Your task to perform on an android device: Open Reddit.com Image 0: 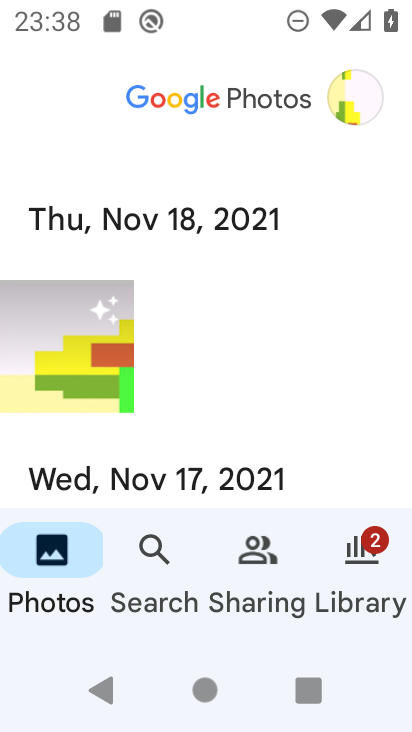
Step 0: drag from (212, 445) to (304, 106)
Your task to perform on an android device: Open Reddit.com Image 1: 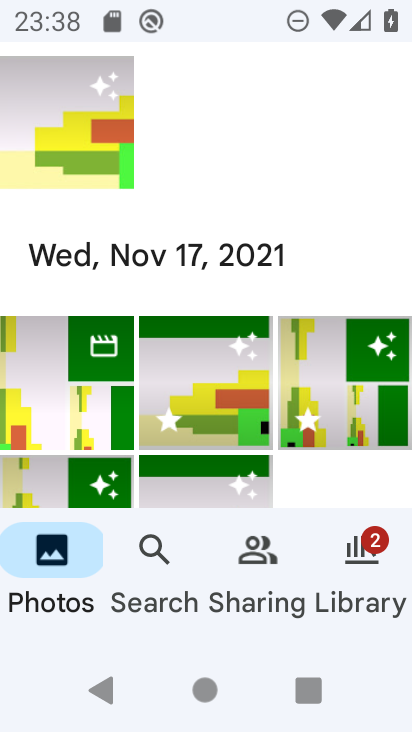
Step 1: drag from (237, 150) to (410, 623)
Your task to perform on an android device: Open Reddit.com Image 2: 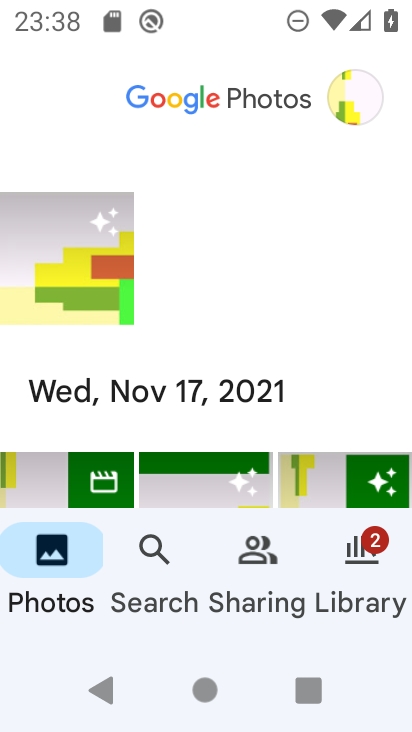
Step 2: click (371, 545)
Your task to perform on an android device: Open Reddit.com Image 3: 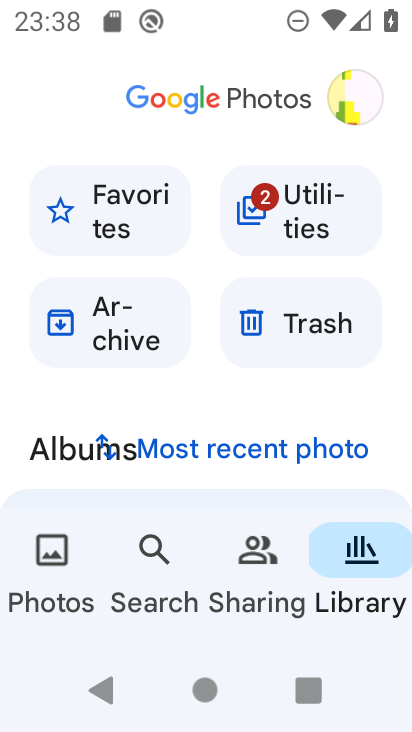
Step 3: press home button
Your task to perform on an android device: Open Reddit.com Image 4: 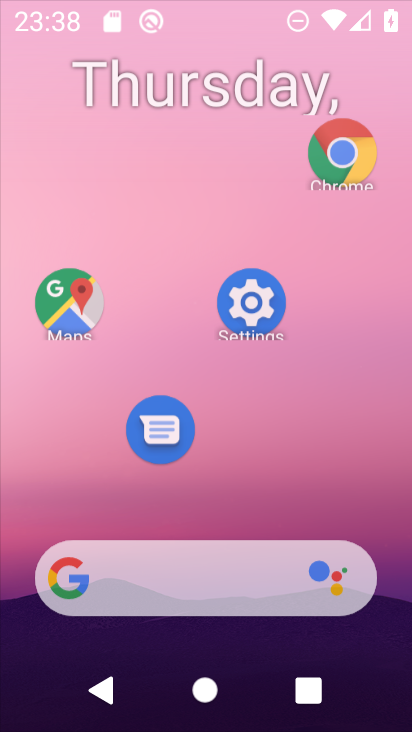
Step 4: drag from (202, 471) to (302, 1)
Your task to perform on an android device: Open Reddit.com Image 5: 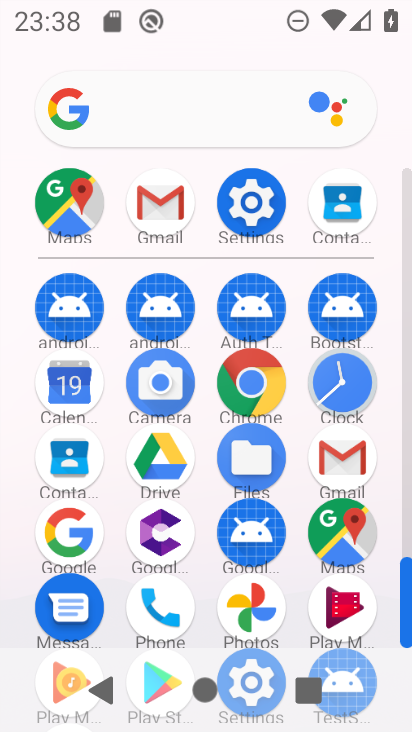
Step 5: click (252, 382)
Your task to perform on an android device: Open Reddit.com Image 6: 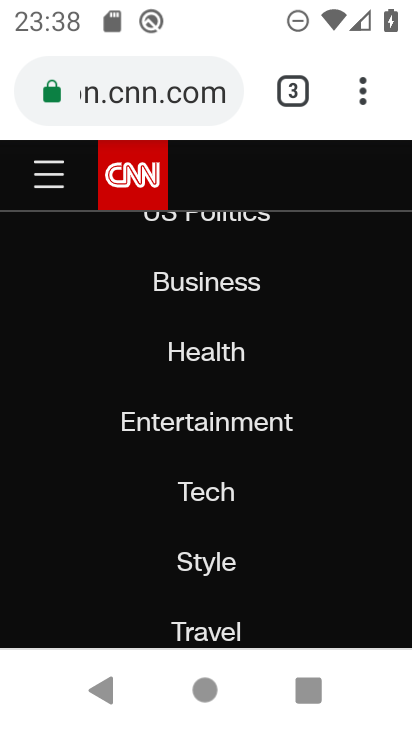
Step 6: click (141, 96)
Your task to perform on an android device: Open Reddit.com Image 7: 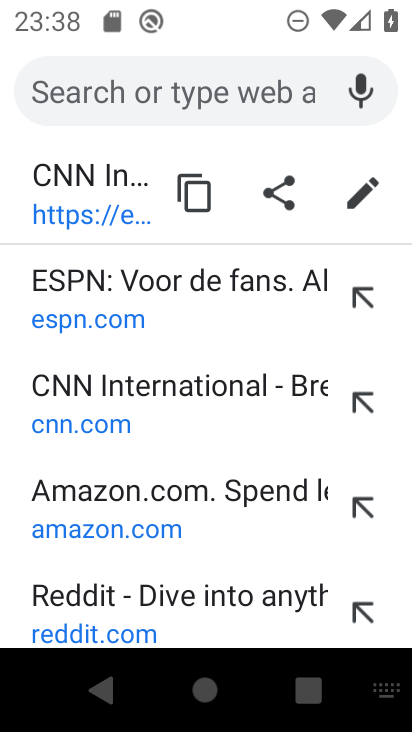
Step 7: type "reddit.com"
Your task to perform on an android device: Open Reddit.com Image 8: 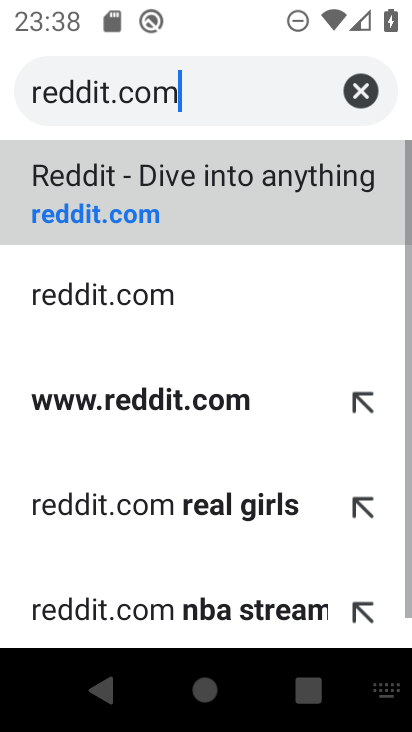
Step 8: click (156, 207)
Your task to perform on an android device: Open Reddit.com Image 9: 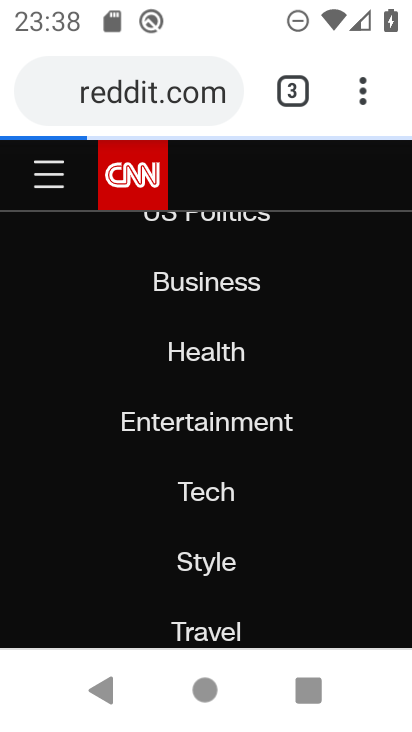
Step 9: task complete